Your task to perform on an android device: What's the weather? Image 0: 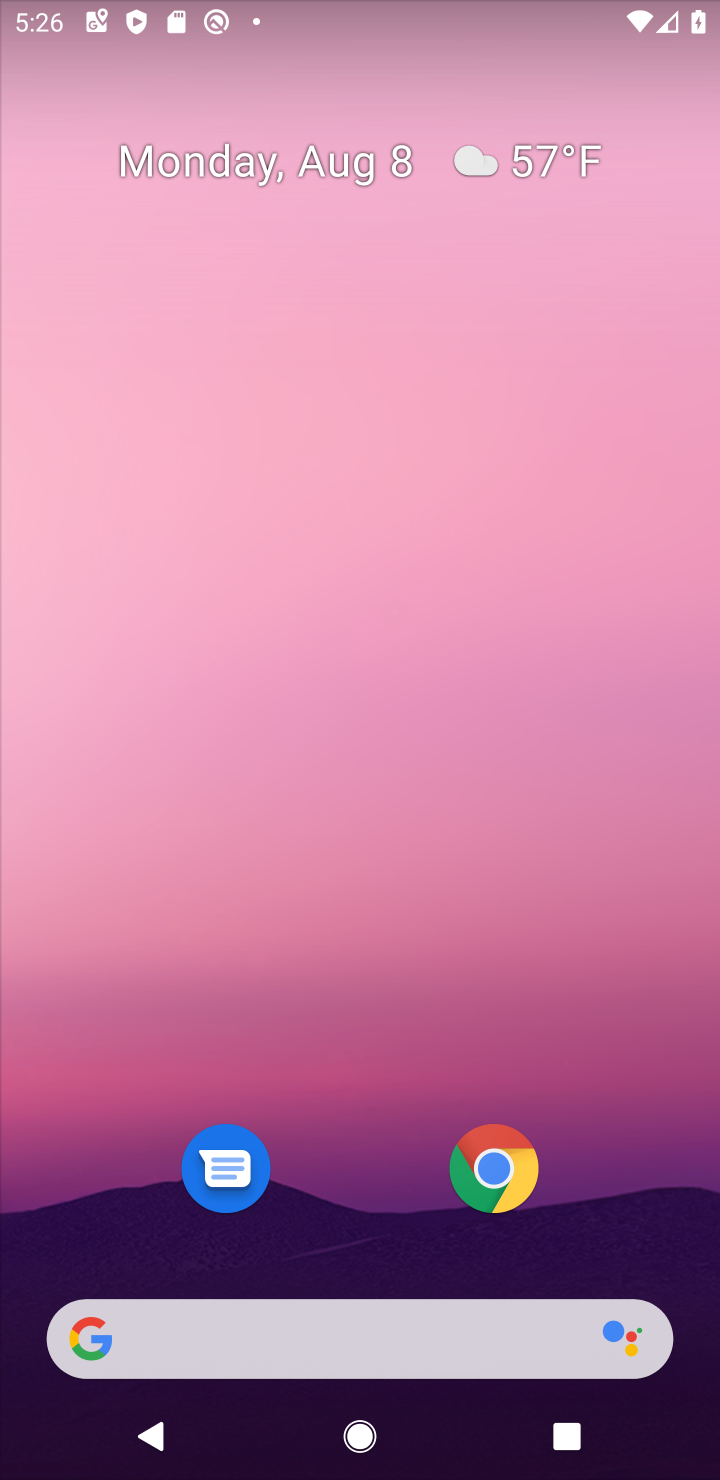
Step 0: click (507, 170)
Your task to perform on an android device: What's the weather? Image 1: 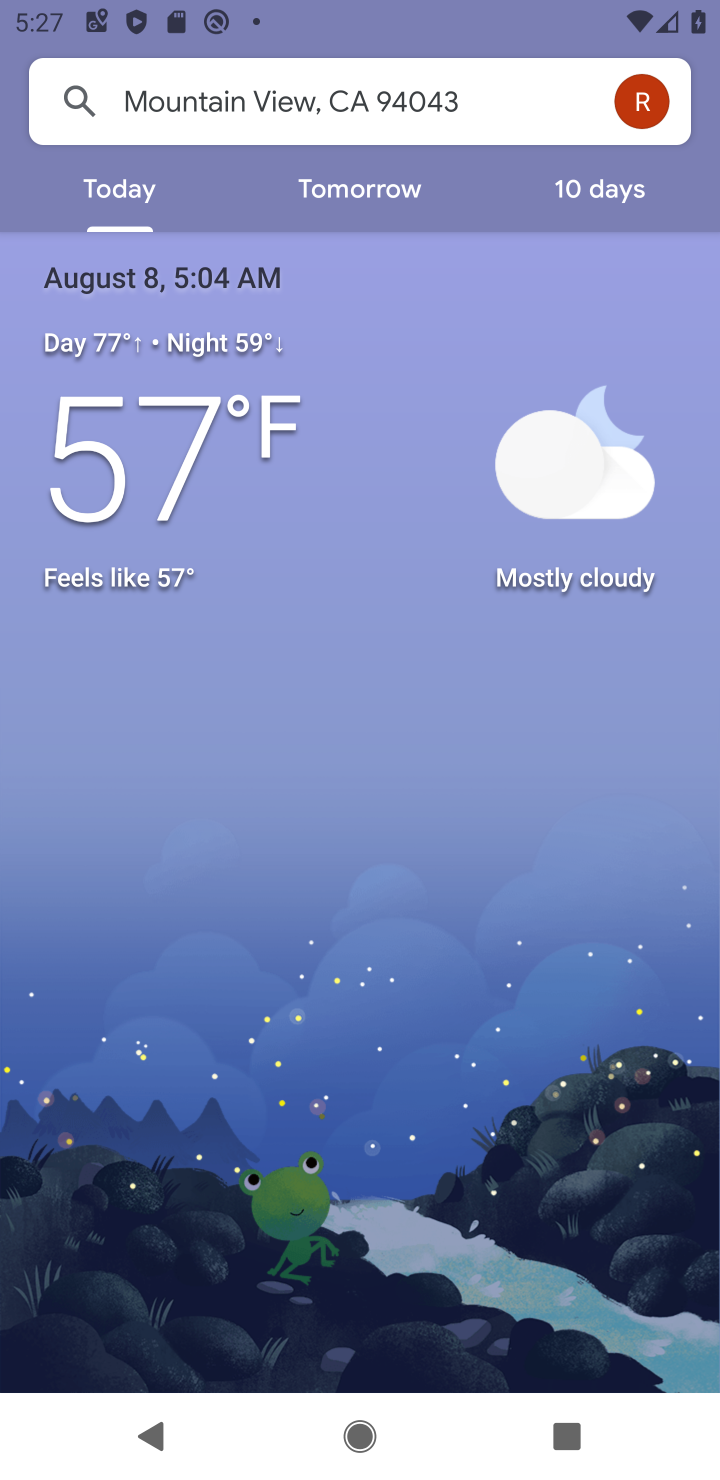
Step 1: task complete